Your task to perform on an android device: toggle javascript in the chrome app Image 0: 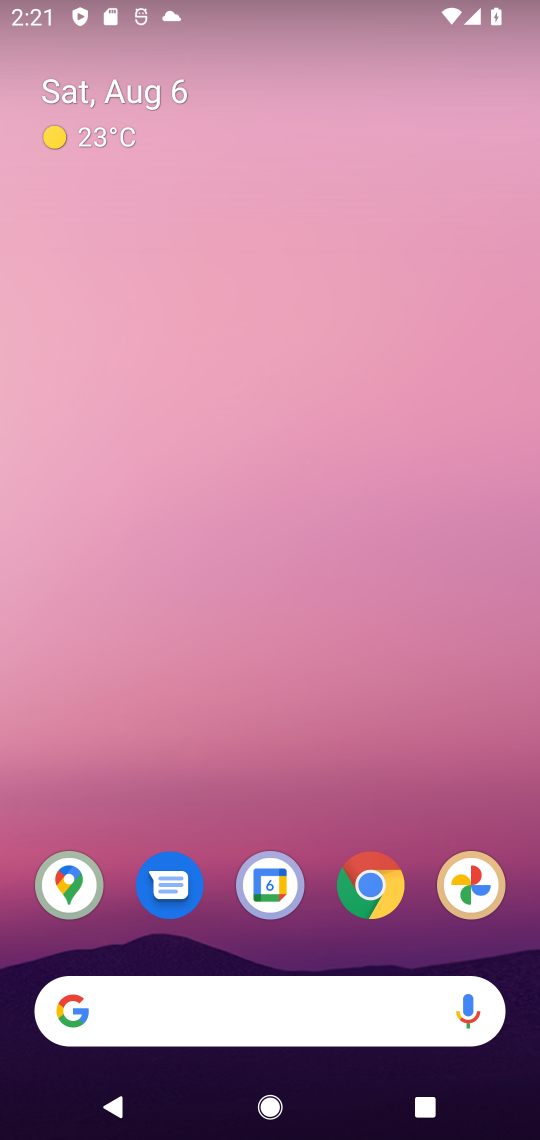
Step 0: drag from (439, 958) to (261, 25)
Your task to perform on an android device: toggle javascript in the chrome app Image 1: 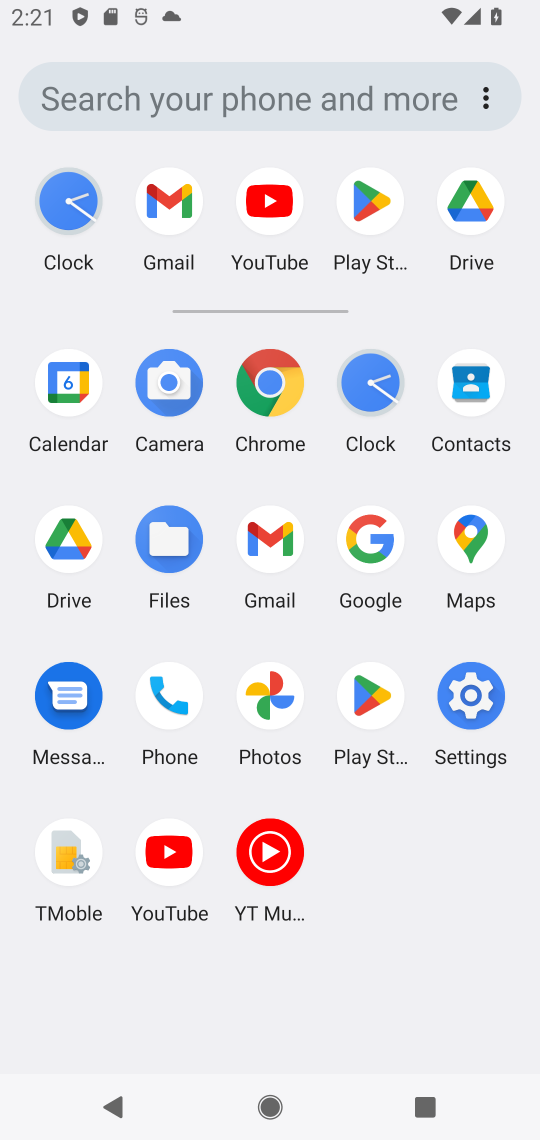
Step 1: click (267, 377)
Your task to perform on an android device: toggle javascript in the chrome app Image 2: 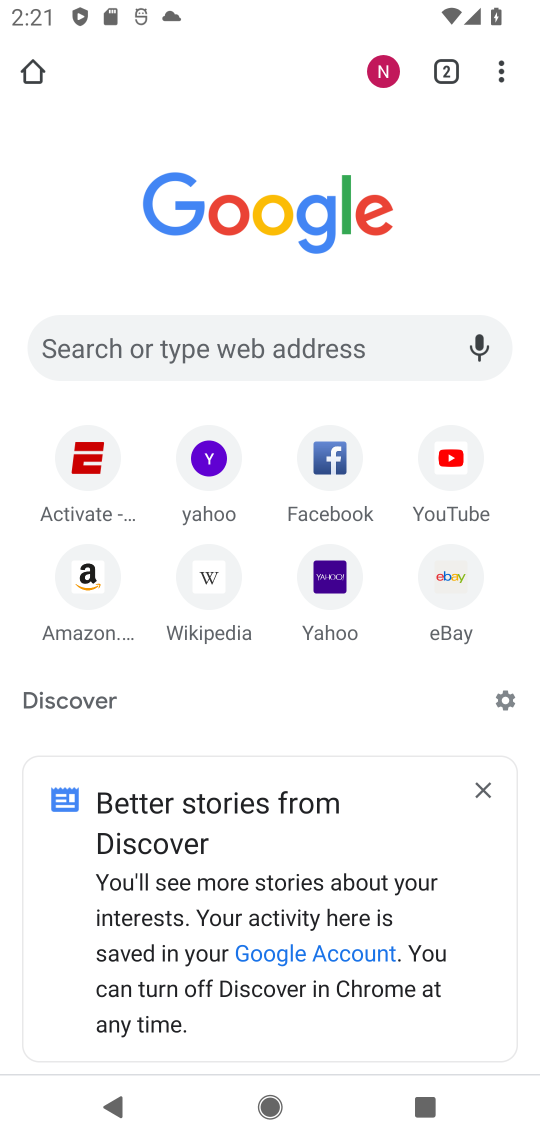
Step 2: click (505, 66)
Your task to perform on an android device: toggle javascript in the chrome app Image 3: 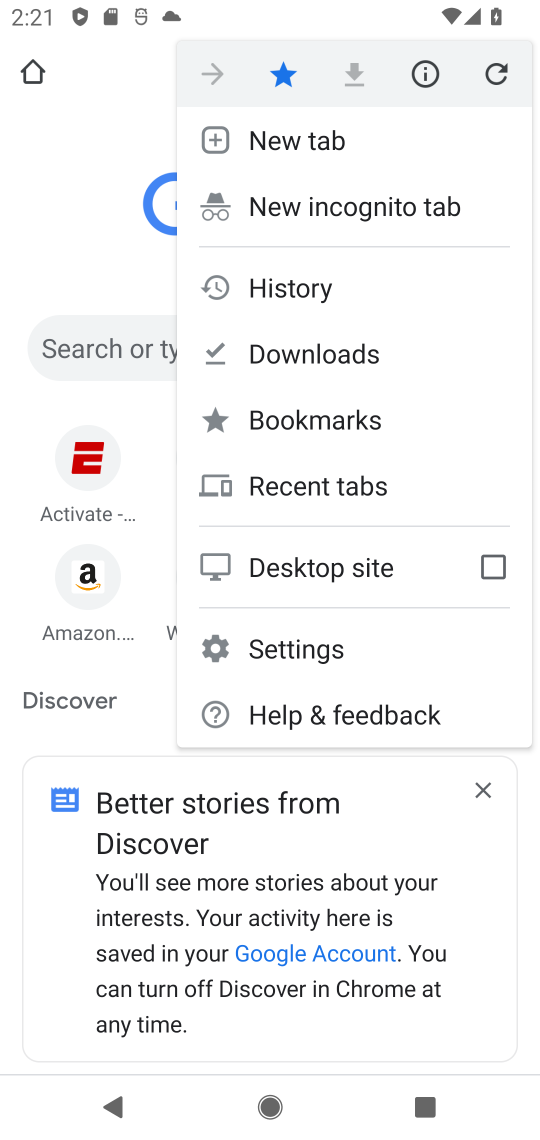
Step 3: click (306, 666)
Your task to perform on an android device: toggle javascript in the chrome app Image 4: 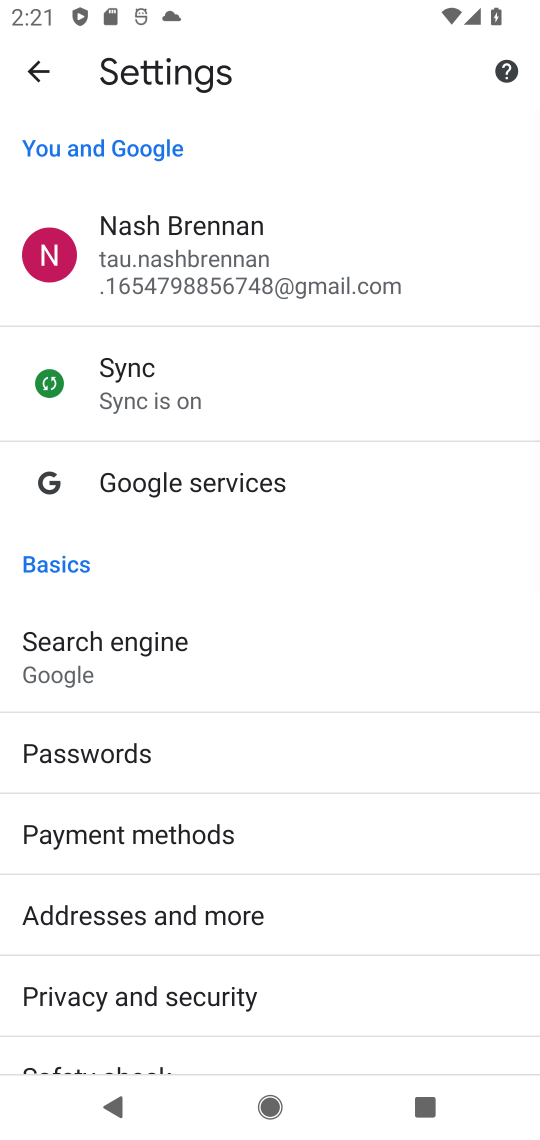
Step 4: drag from (118, 946) to (126, 184)
Your task to perform on an android device: toggle javascript in the chrome app Image 5: 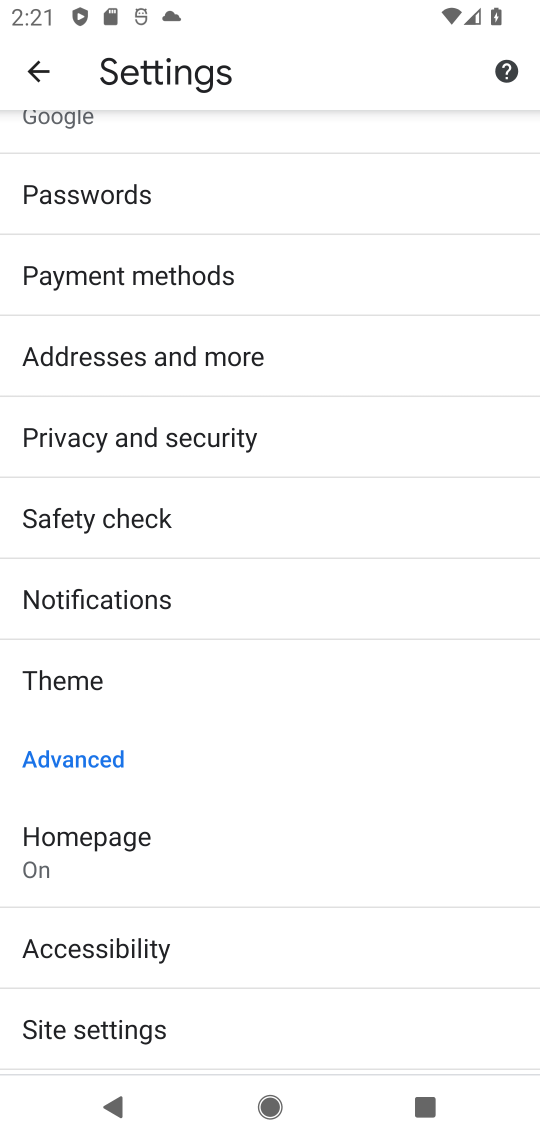
Step 5: click (126, 1019)
Your task to perform on an android device: toggle javascript in the chrome app Image 6: 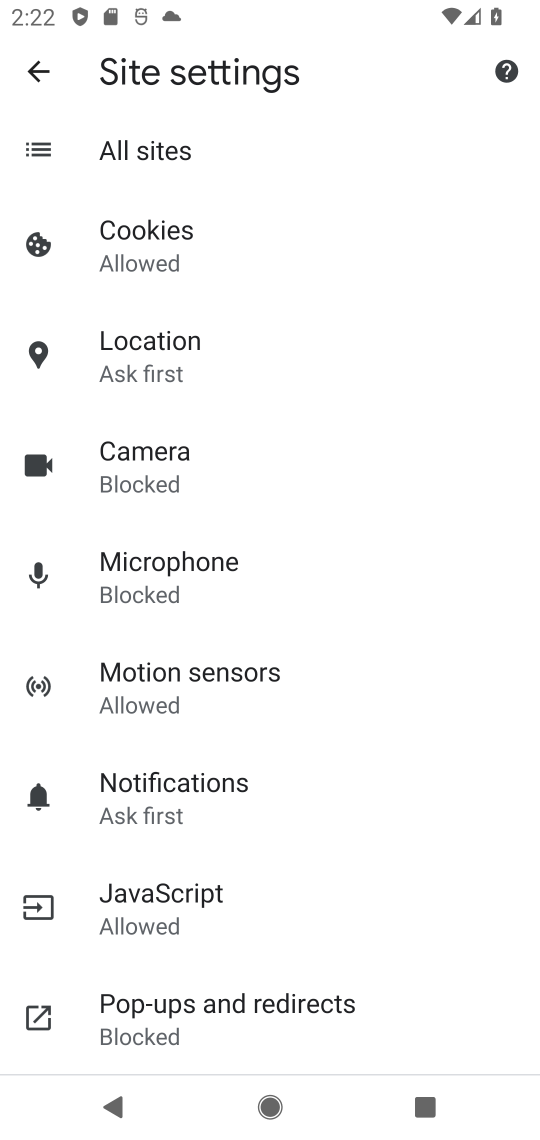
Step 6: click (180, 917)
Your task to perform on an android device: toggle javascript in the chrome app Image 7: 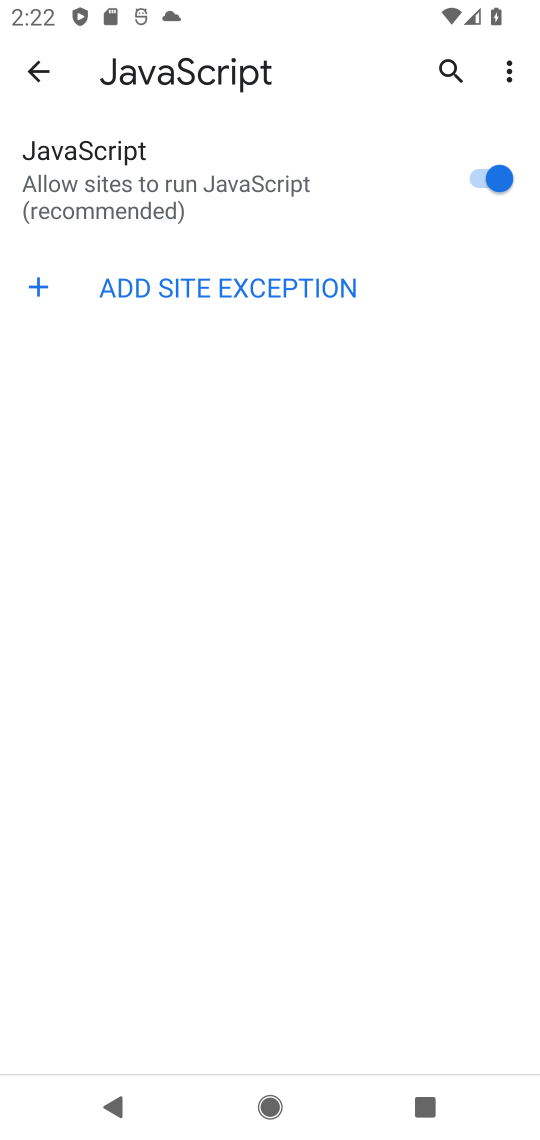
Step 7: click (455, 179)
Your task to perform on an android device: toggle javascript in the chrome app Image 8: 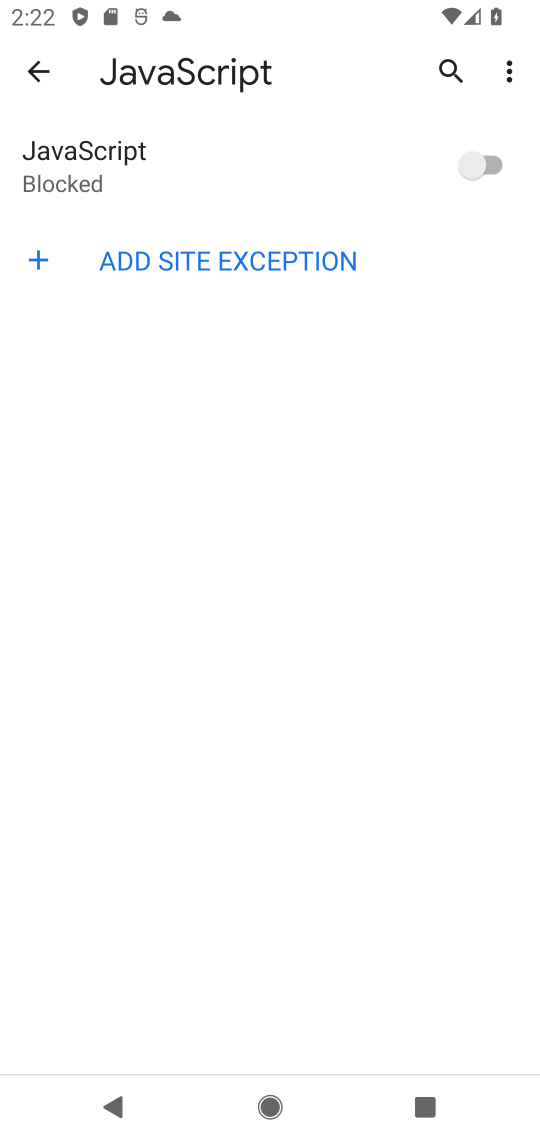
Step 8: task complete